Your task to perform on an android device: Is it going to rain today? Image 0: 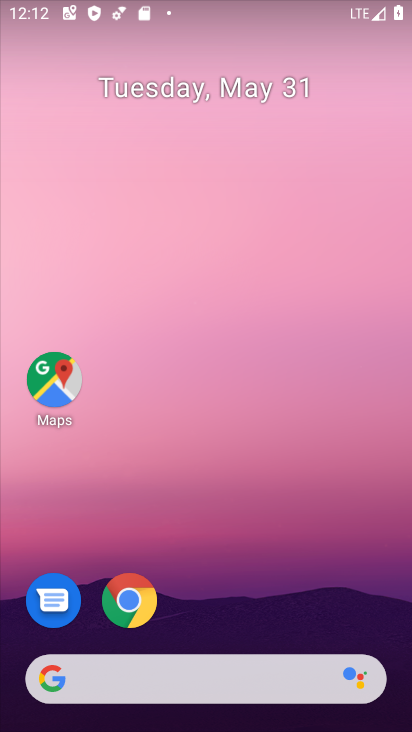
Step 0: drag from (227, 644) to (205, 21)
Your task to perform on an android device: Is it going to rain today? Image 1: 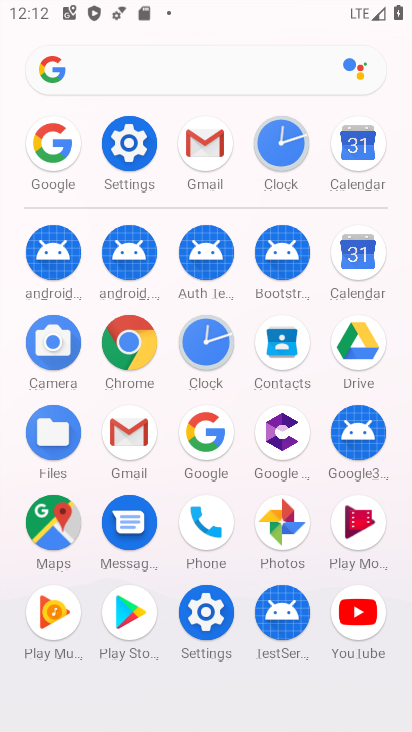
Step 1: click (205, 433)
Your task to perform on an android device: Is it going to rain today? Image 2: 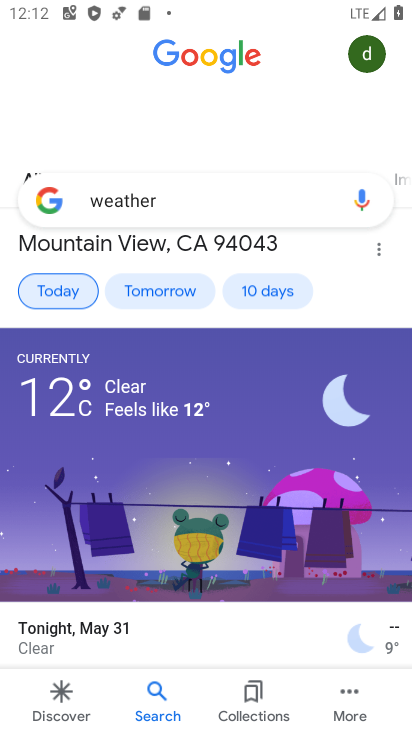
Step 2: click (57, 289)
Your task to perform on an android device: Is it going to rain today? Image 3: 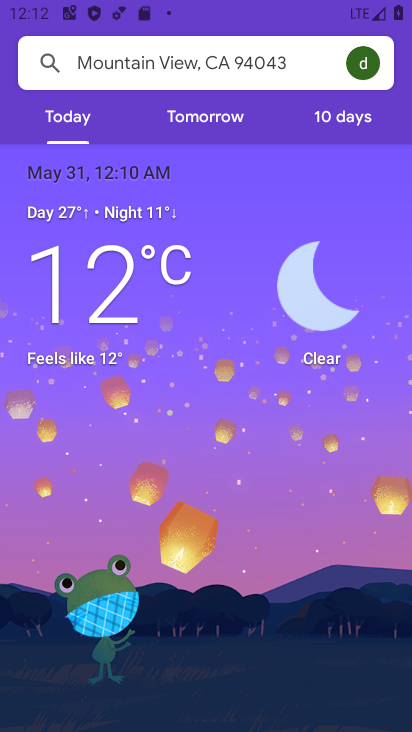
Step 3: task complete